Your task to perform on an android device: Clear the cart on bestbuy.com. Search for "acer nitro" on bestbuy.com, select the first entry, add it to the cart, then select checkout. Image 0: 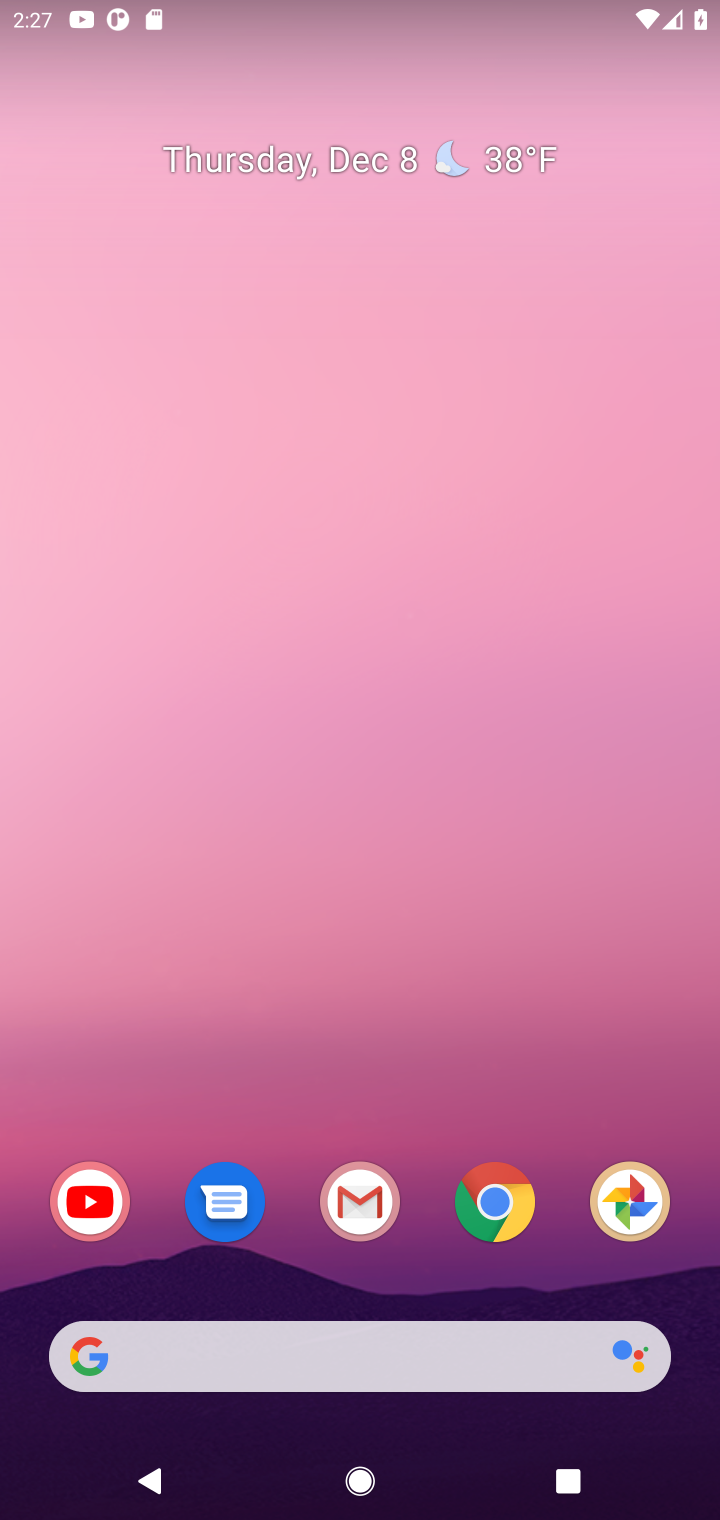
Step 0: click (508, 1195)
Your task to perform on an android device: Clear the cart on bestbuy.com. Search for "acer nitro" on bestbuy.com, select the first entry, add it to the cart, then select checkout. Image 1: 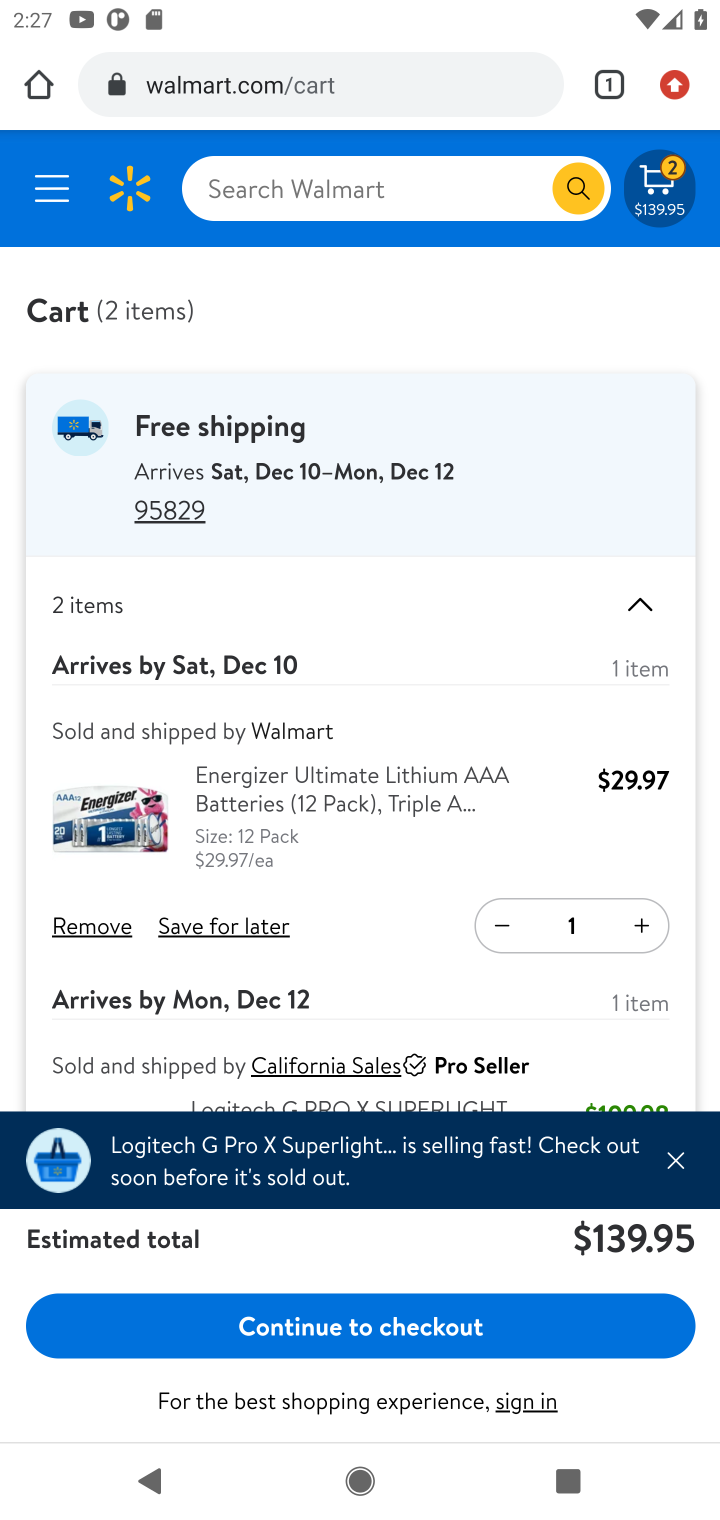
Step 1: click (307, 76)
Your task to perform on an android device: Clear the cart on bestbuy.com. Search for "acer nitro" on bestbuy.com, select the first entry, add it to the cart, then select checkout. Image 2: 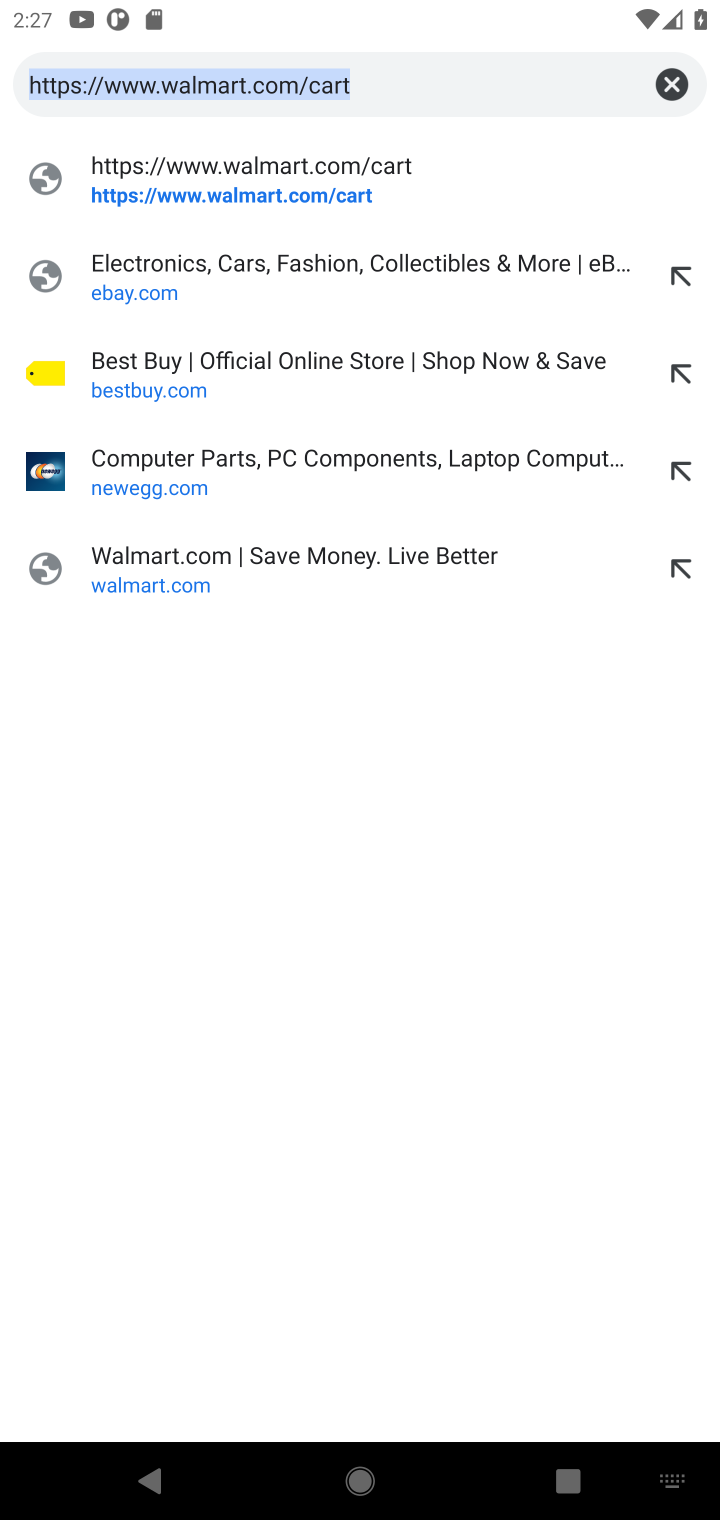
Step 2: click (168, 361)
Your task to perform on an android device: Clear the cart on bestbuy.com. Search for "acer nitro" on bestbuy.com, select the first entry, add it to the cart, then select checkout. Image 3: 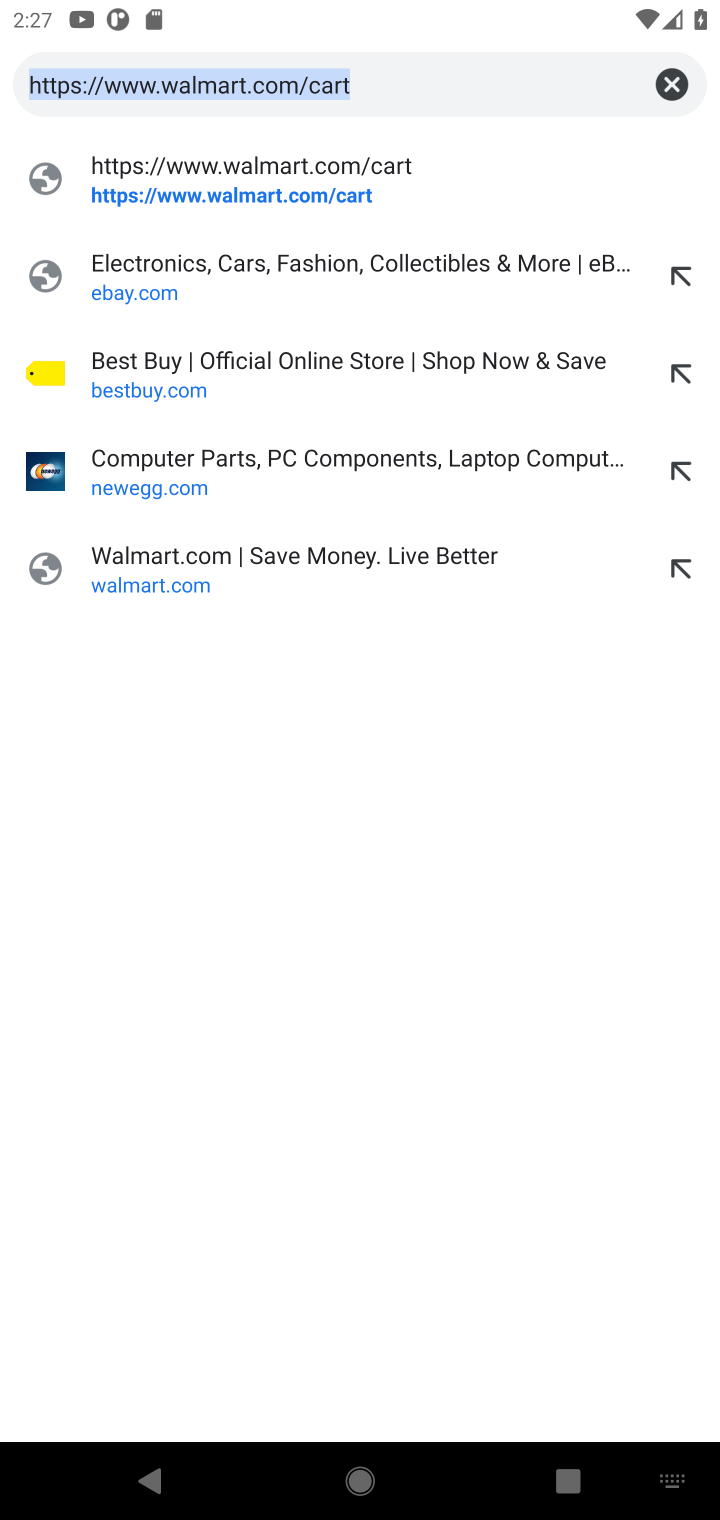
Step 3: click (169, 360)
Your task to perform on an android device: Clear the cart on bestbuy.com. Search for "acer nitro" on bestbuy.com, select the first entry, add it to the cart, then select checkout. Image 4: 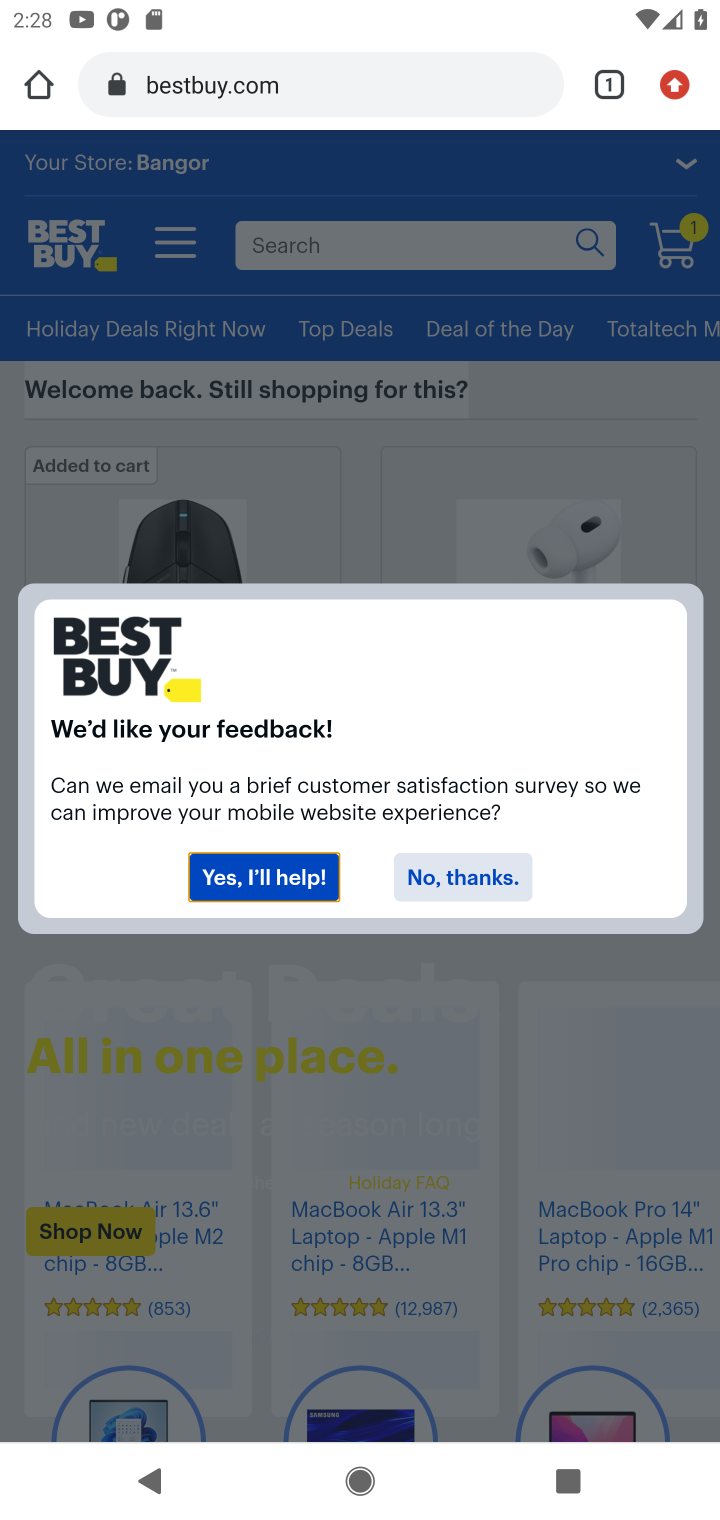
Step 4: click (479, 884)
Your task to perform on an android device: Clear the cart on bestbuy.com. Search for "acer nitro" on bestbuy.com, select the first entry, add it to the cart, then select checkout. Image 5: 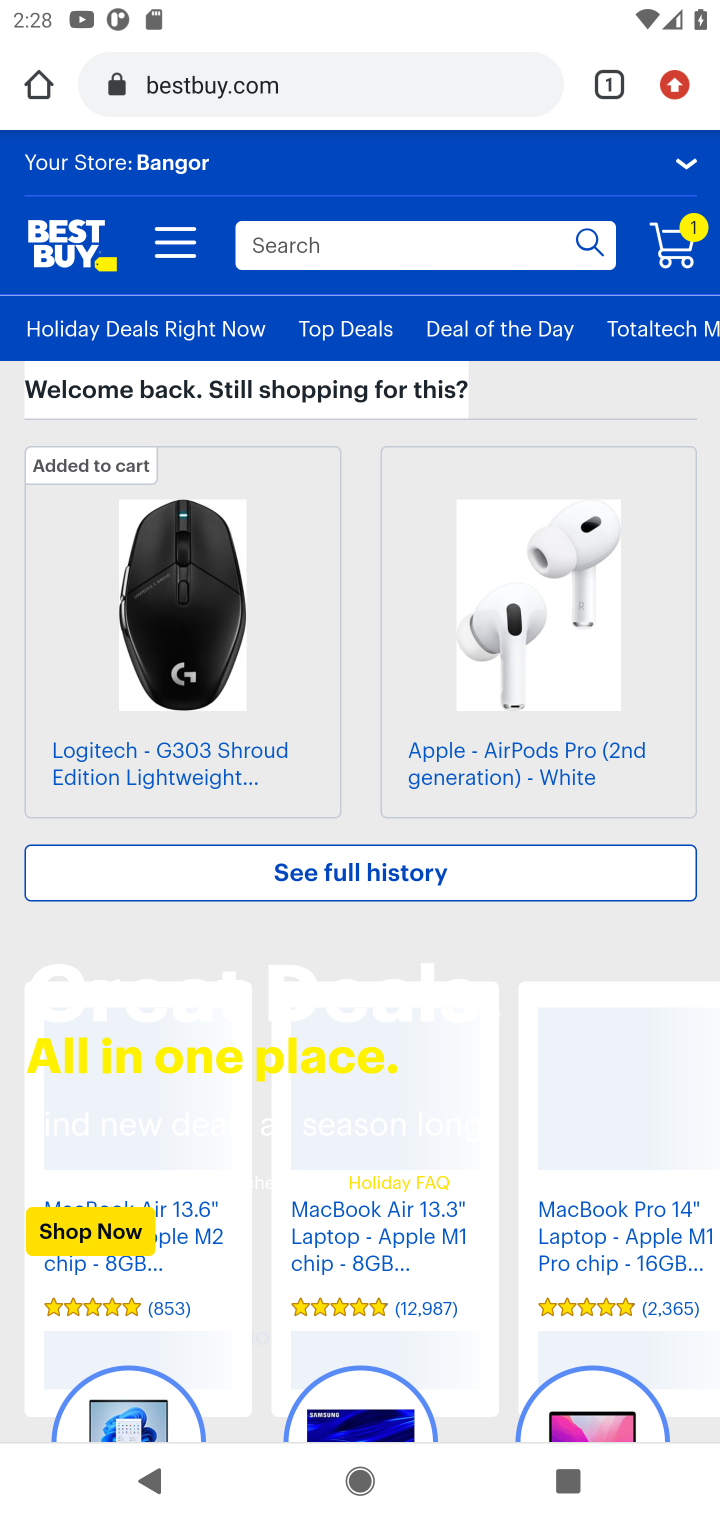
Step 5: click (676, 247)
Your task to perform on an android device: Clear the cart on bestbuy.com. Search for "acer nitro" on bestbuy.com, select the first entry, add it to the cart, then select checkout. Image 6: 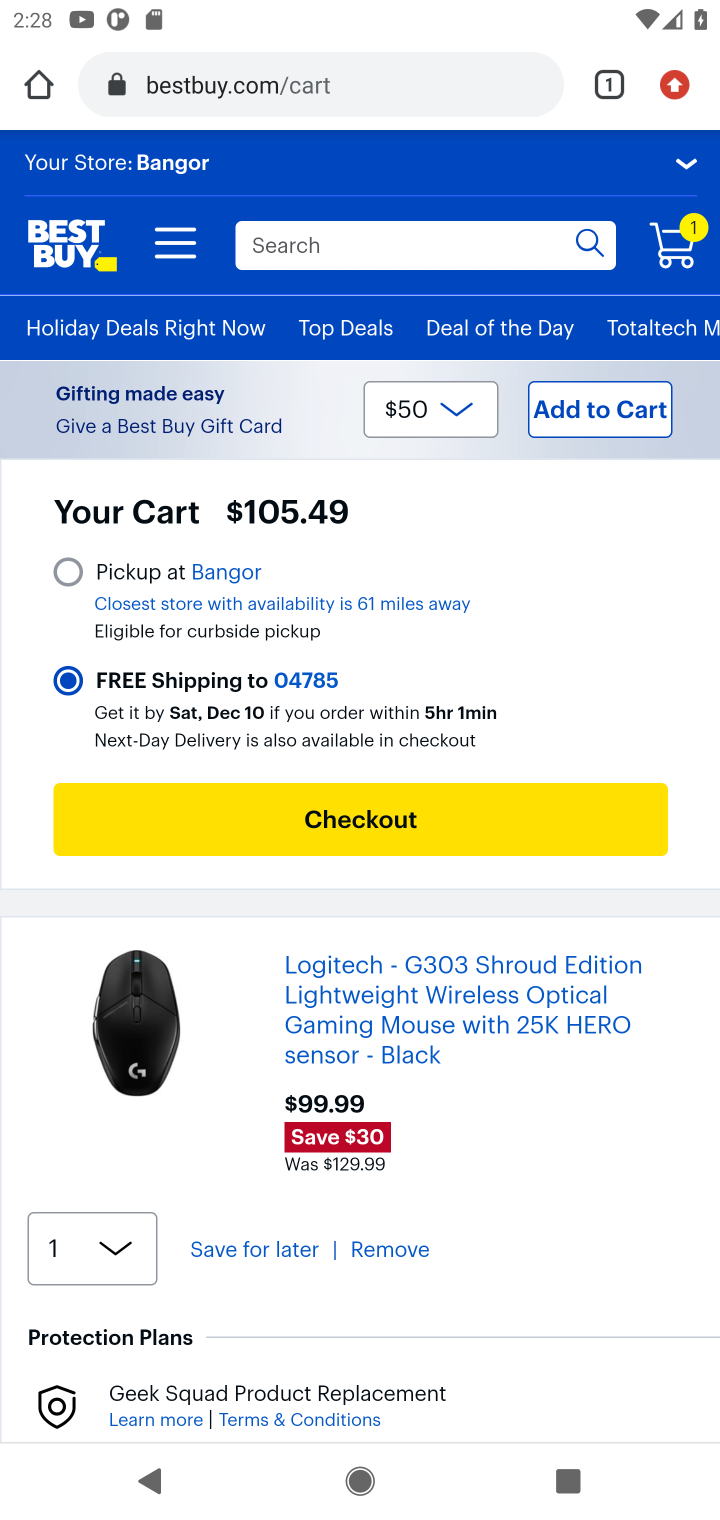
Step 6: click (364, 807)
Your task to perform on an android device: Clear the cart on bestbuy.com. Search for "acer nitro" on bestbuy.com, select the first entry, add it to the cart, then select checkout. Image 7: 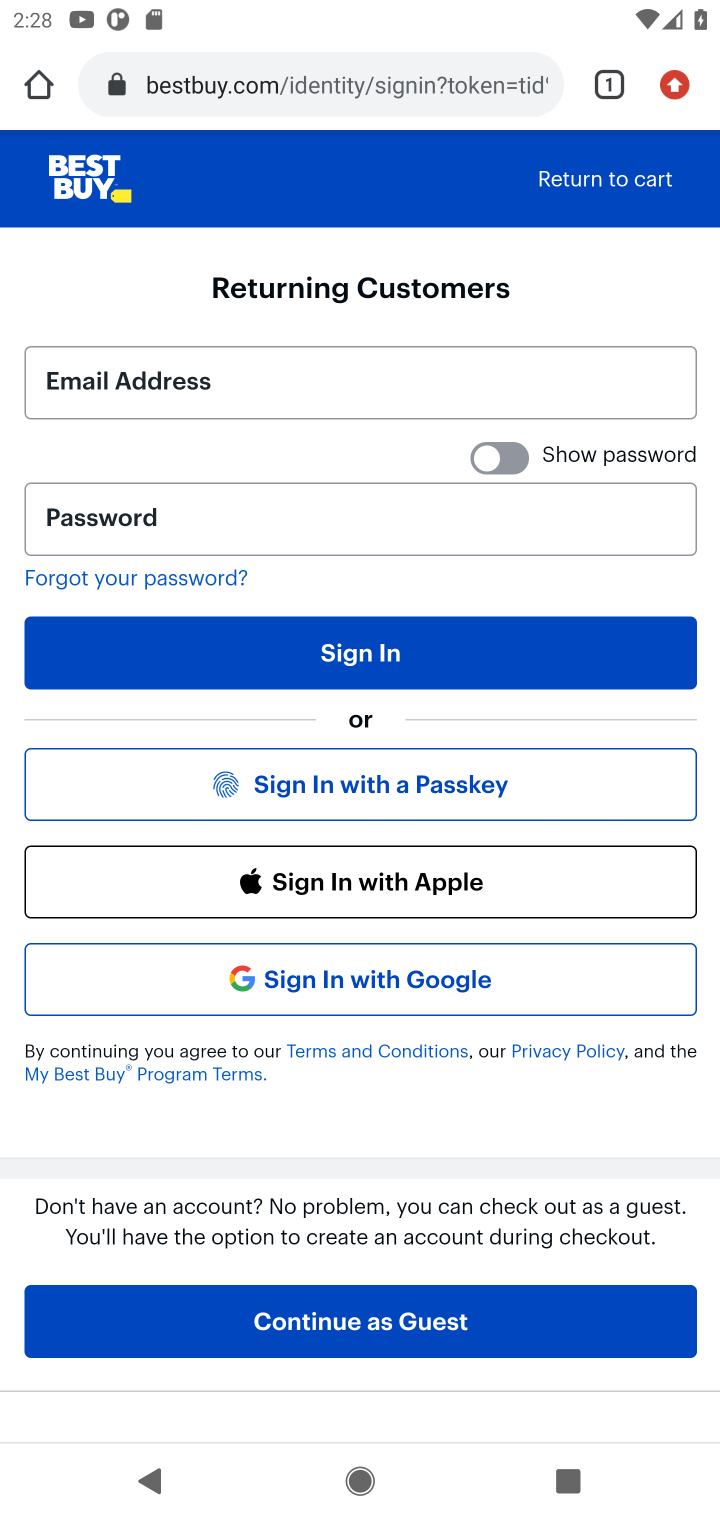
Step 7: click (633, 177)
Your task to perform on an android device: Clear the cart on bestbuy.com. Search for "acer nitro" on bestbuy.com, select the first entry, add it to the cart, then select checkout. Image 8: 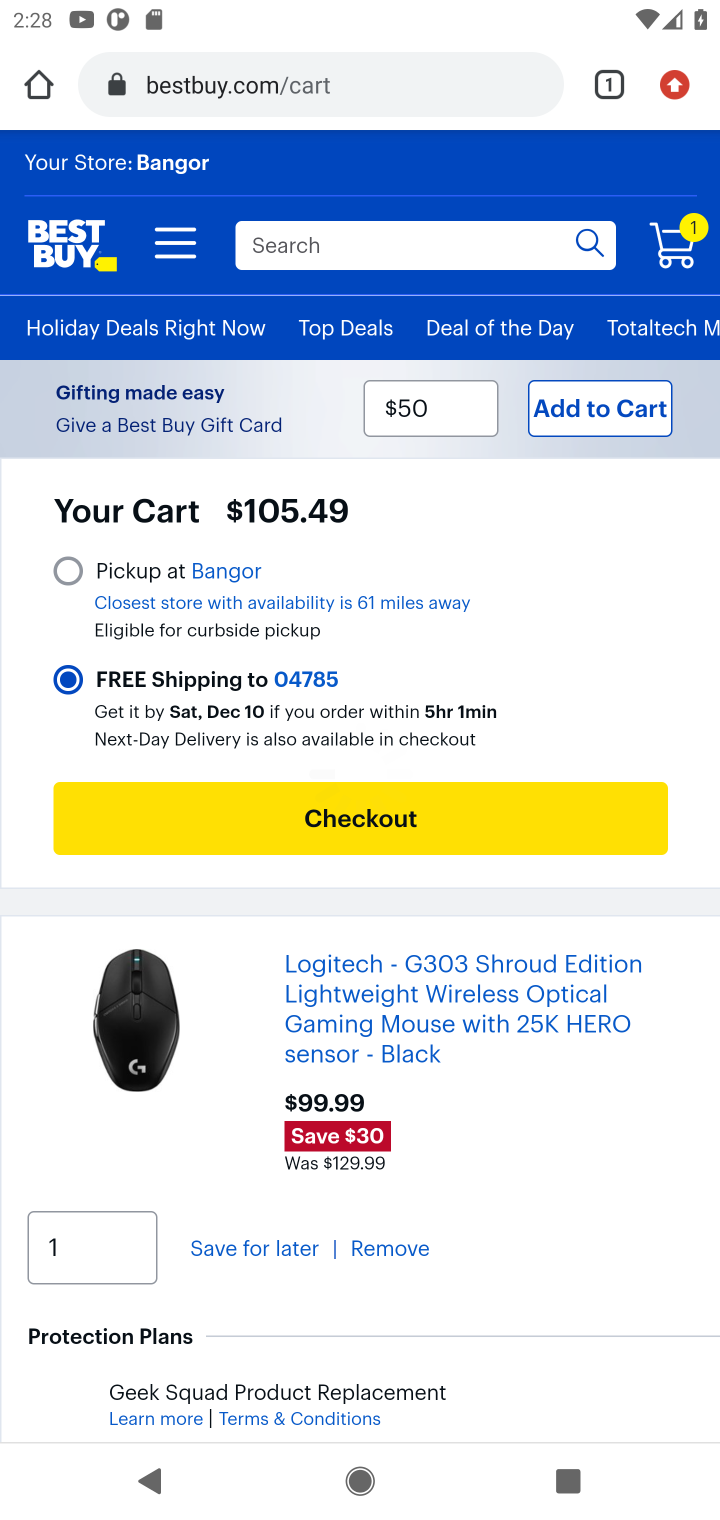
Step 8: task complete